Your task to perform on an android device: Open settings Image 0: 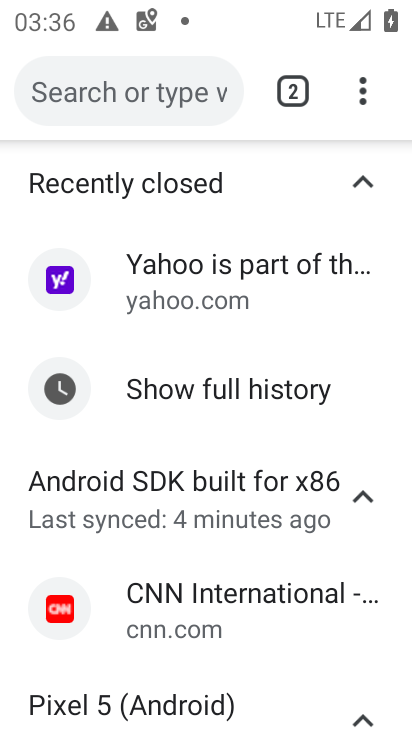
Step 0: click (368, 98)
Your task to perform on an android device: Open settings Image 1: 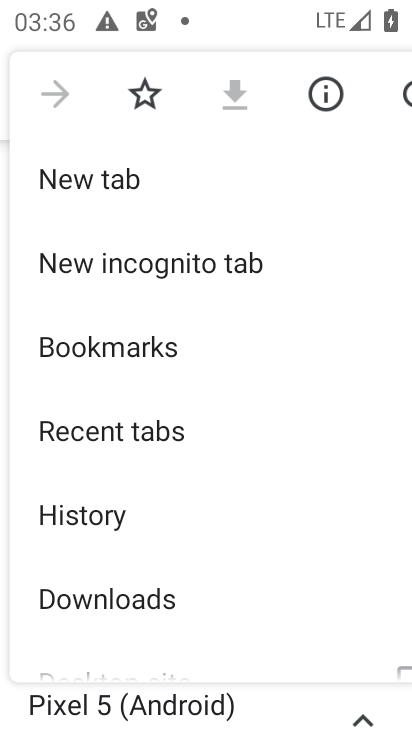
Step 1: drag from (70, 627) to (71, 382)
Your task to perform on an android device: Open settings Image 2: 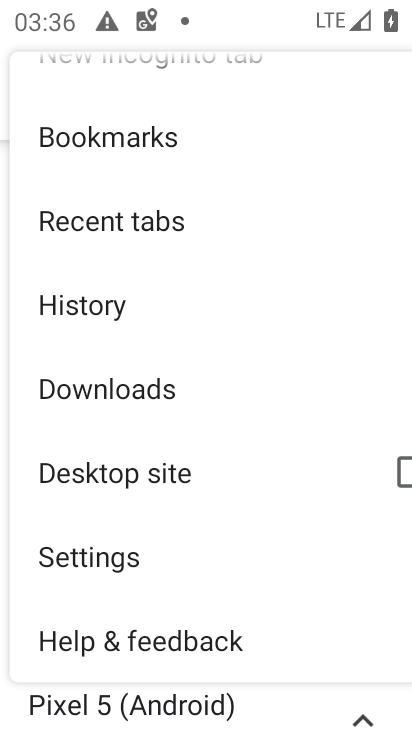
Step 2: click (155, 570)
Your task to perform on an android device: Open settings Image 3: 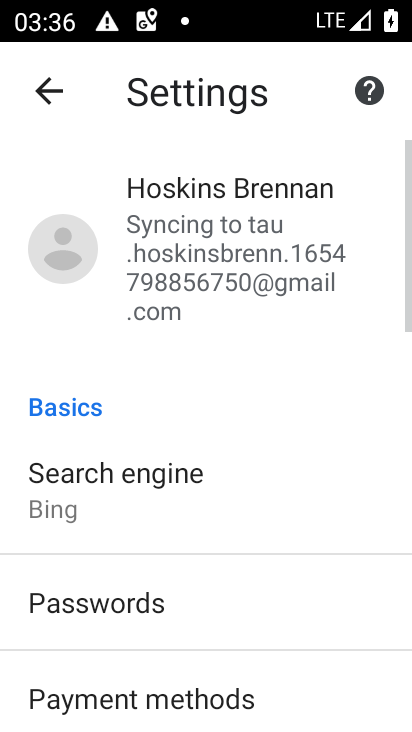
Step 3: task complete